Your task to perform on an android device: turn off notifications in google photos Image 0: 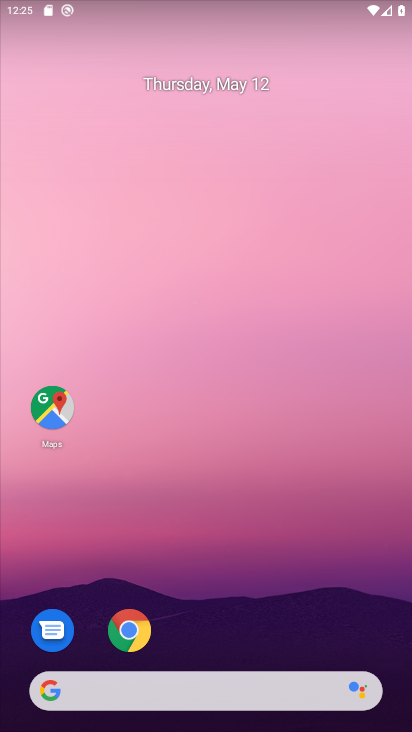
Step 0: drag from (281, 620) to (335, 116)
Your task to perform on an android device: turn off notifications in google photos Image 1: 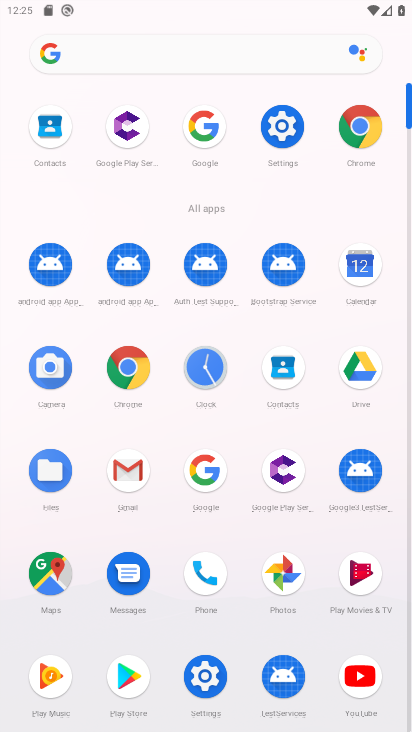
Step 1: click (282, 568)
Your task to perform on an android device: turn off notifications in google photos Image 2: 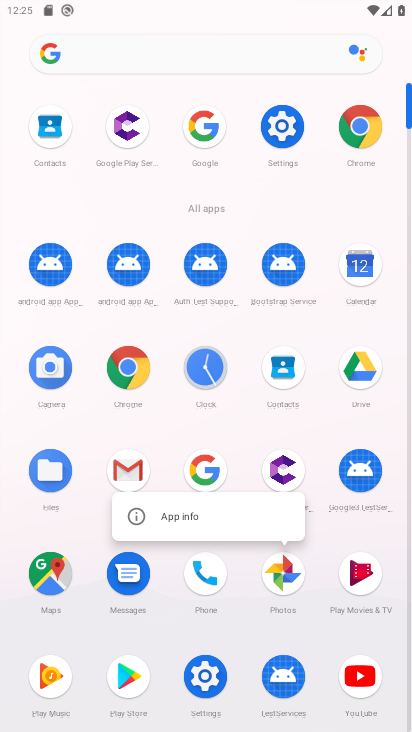
Step 2: click (229, 517)
Your task to perform on an android device: turn off notifications in google photos Image 3: 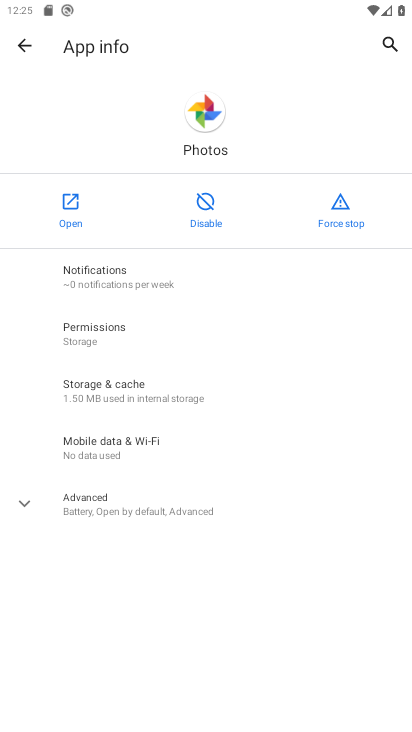
Step 3: click (131, 276)
Your task to perform on an android device: turn off notifications in google photos Image 4: 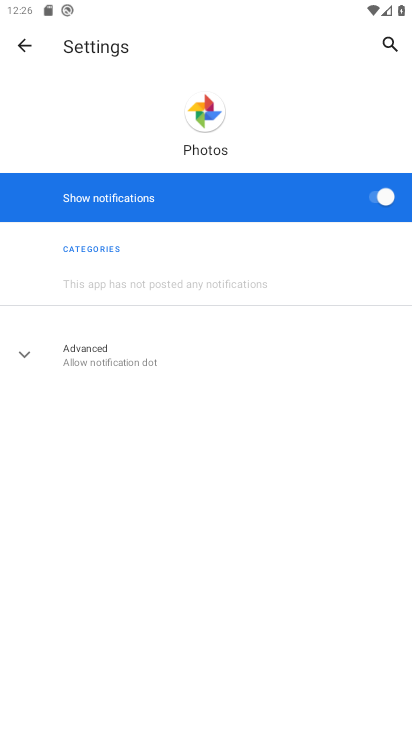
Step 4: click (368, 202)
Your task to perform on an android device: turn off notifications in google photos Image 5: 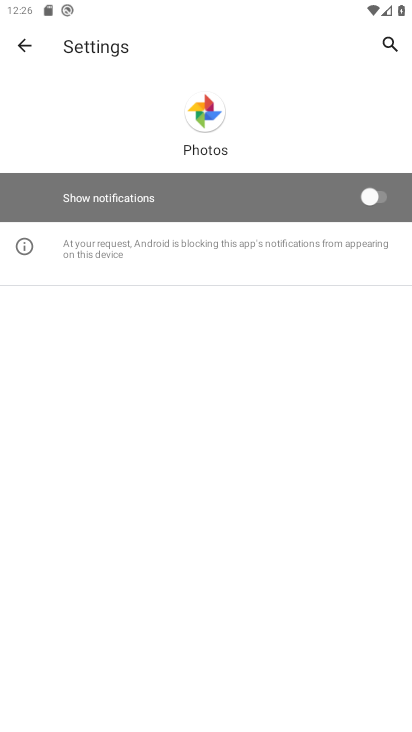
Step 5: task complete